Your task to perform on an android device: What is the recent news? Image 0: 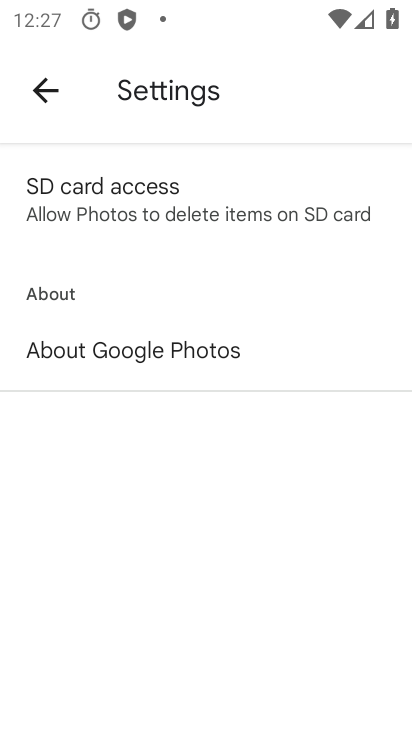
Step 0: press home button
Your task to perform on an android device: What is the recent news? Image 1: 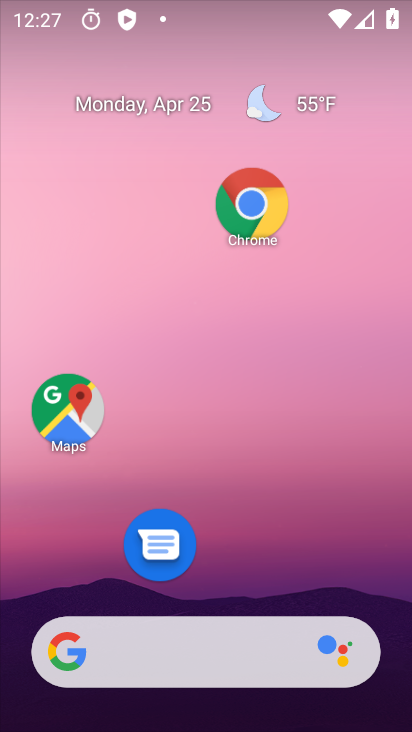
Step 1: drag from (309, 642) to (337, 28)
Your task to perform on an android device: What is the recent news? Image 2: 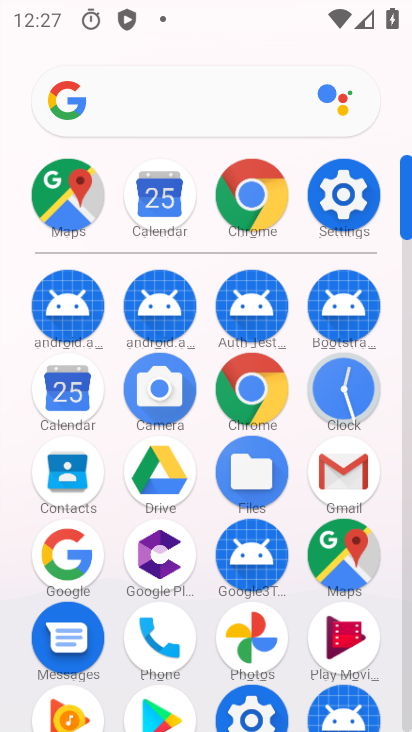
Step 2: click (150, 121)
Your task to perform on an android device: What is the recent news? Image 3: 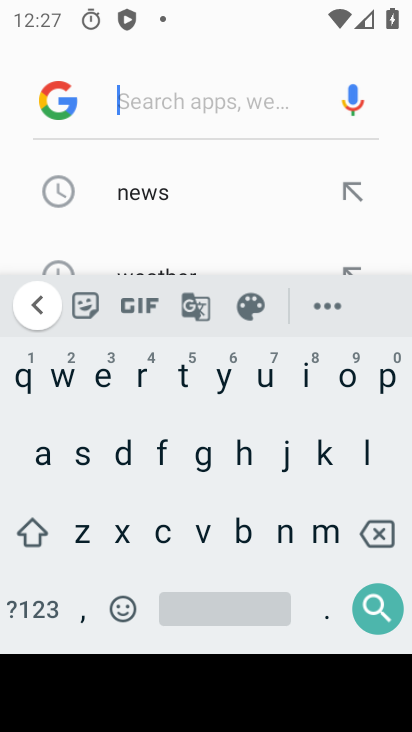
Step 3: click (142, 373)
Your task to perform on an android device: What is the recent news? Image 4: 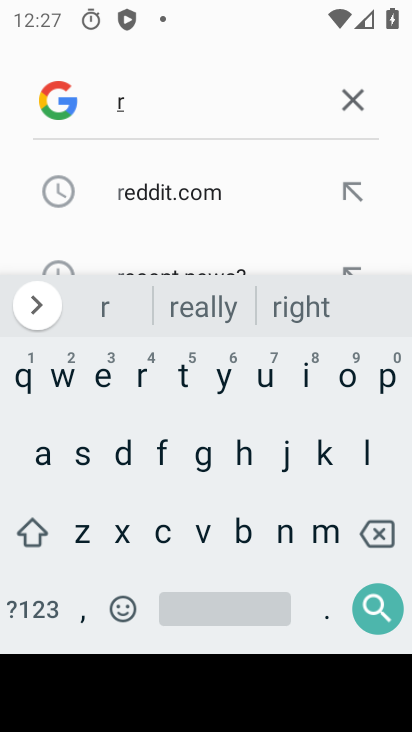
Step 4: click (105, 383)
Your task to perform on an android device: What is the recent news? Image 5: 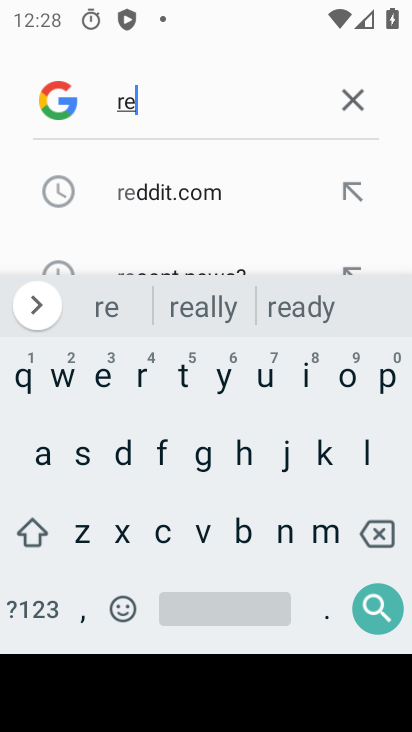
Step 5: click (162, 537)
Your task to perform on an android device: What is the recent news? Image 6: 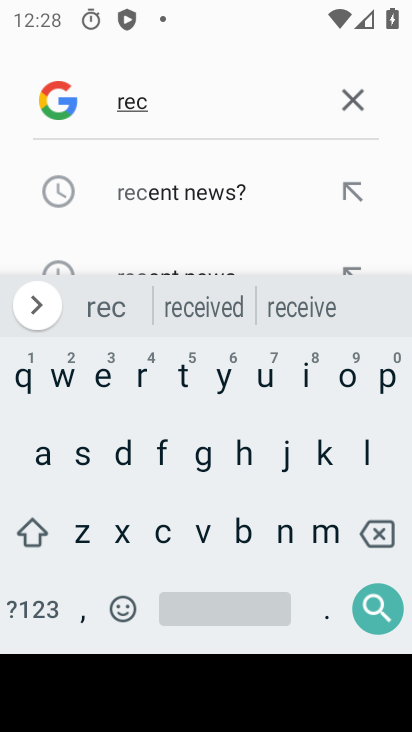
Step 6: click (193, 203)
Your task to perform on an android device: What is the recent news? Image 7: 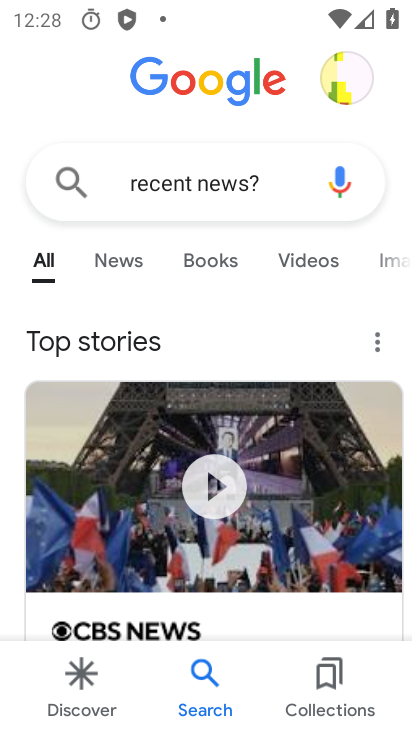
Step 7: task complete